Your task to perform on an android device: turn on improve location accuracy Image 0: 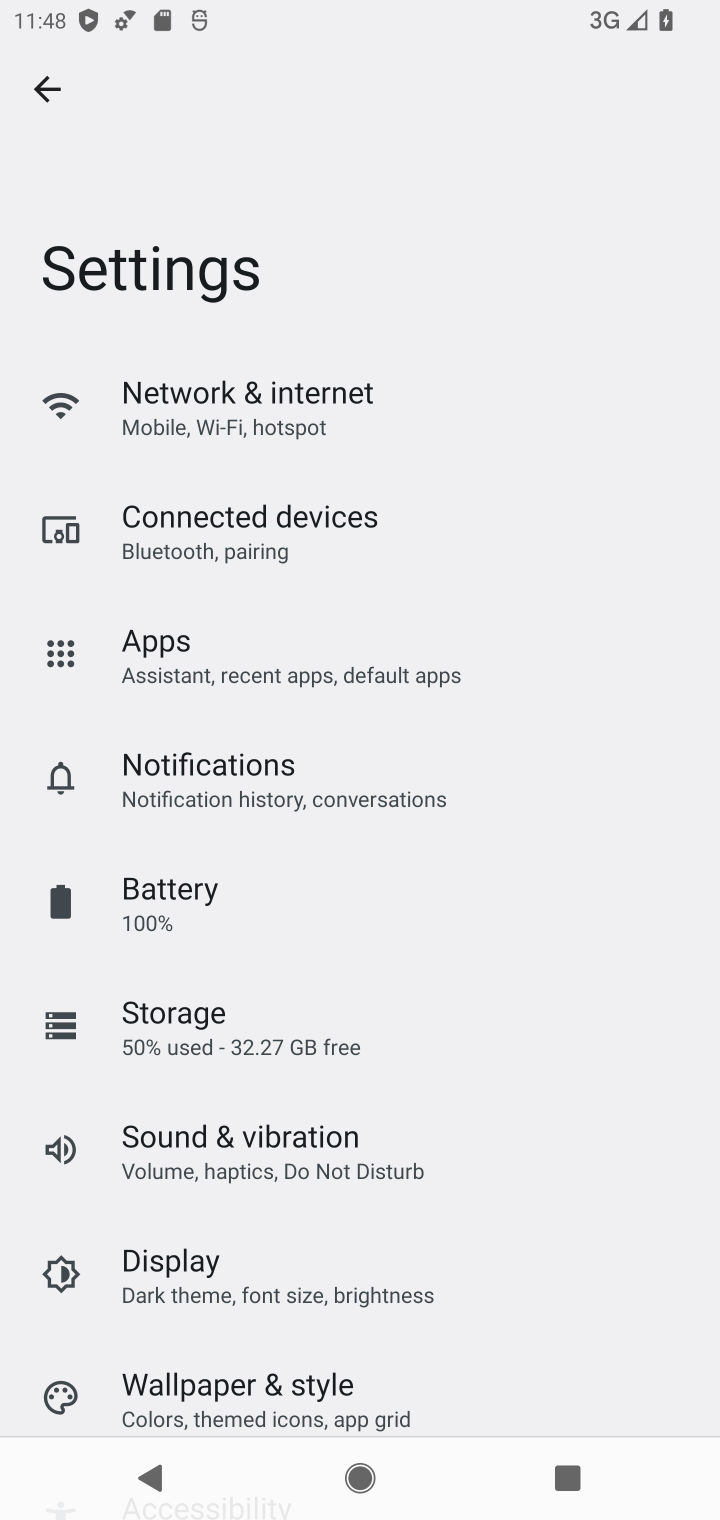
Step 0: press home button
Your task to perform on an android device: turn on improve location accuracy Image 1: 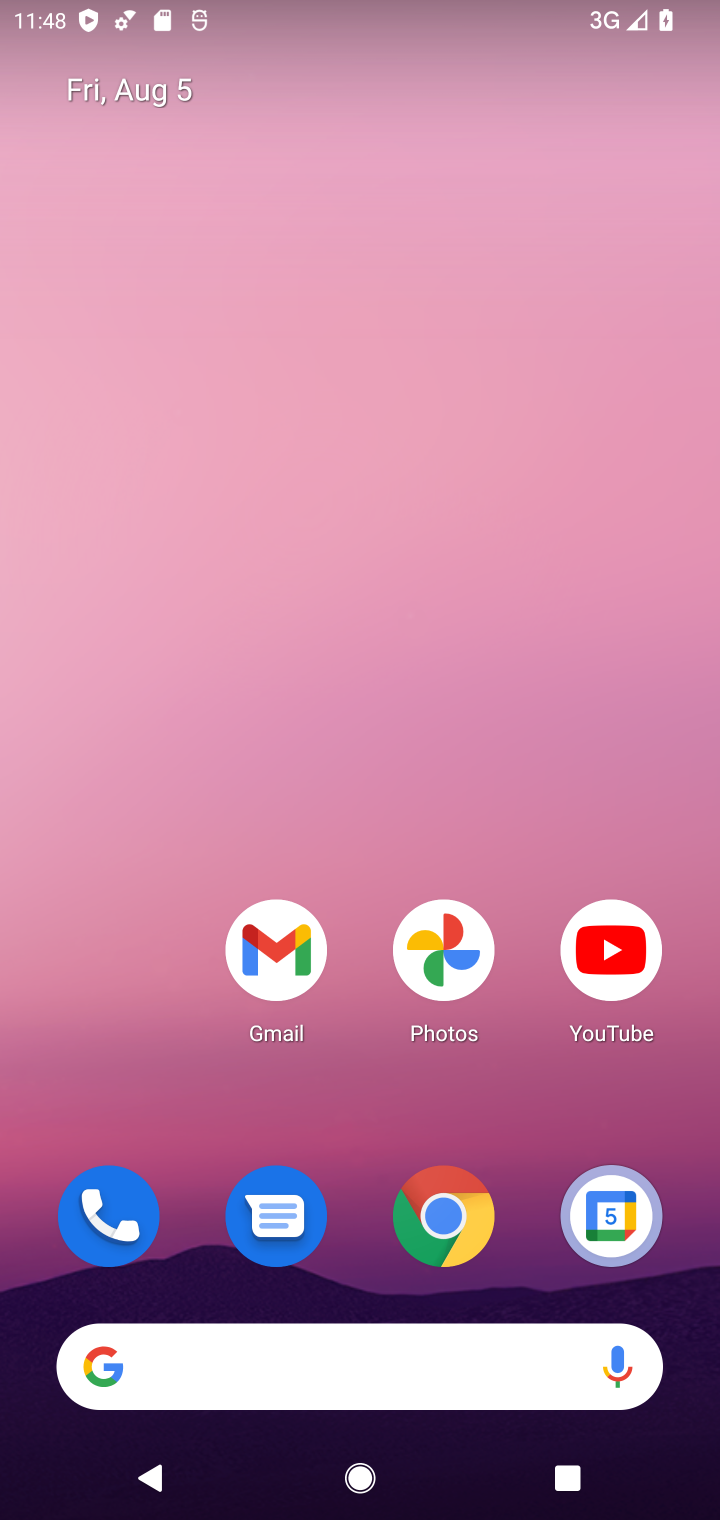
Step 1: drag from (332, 1334) to (388, 141)
Your task to perform on an android device: turn on improve location accuracy Image 2: 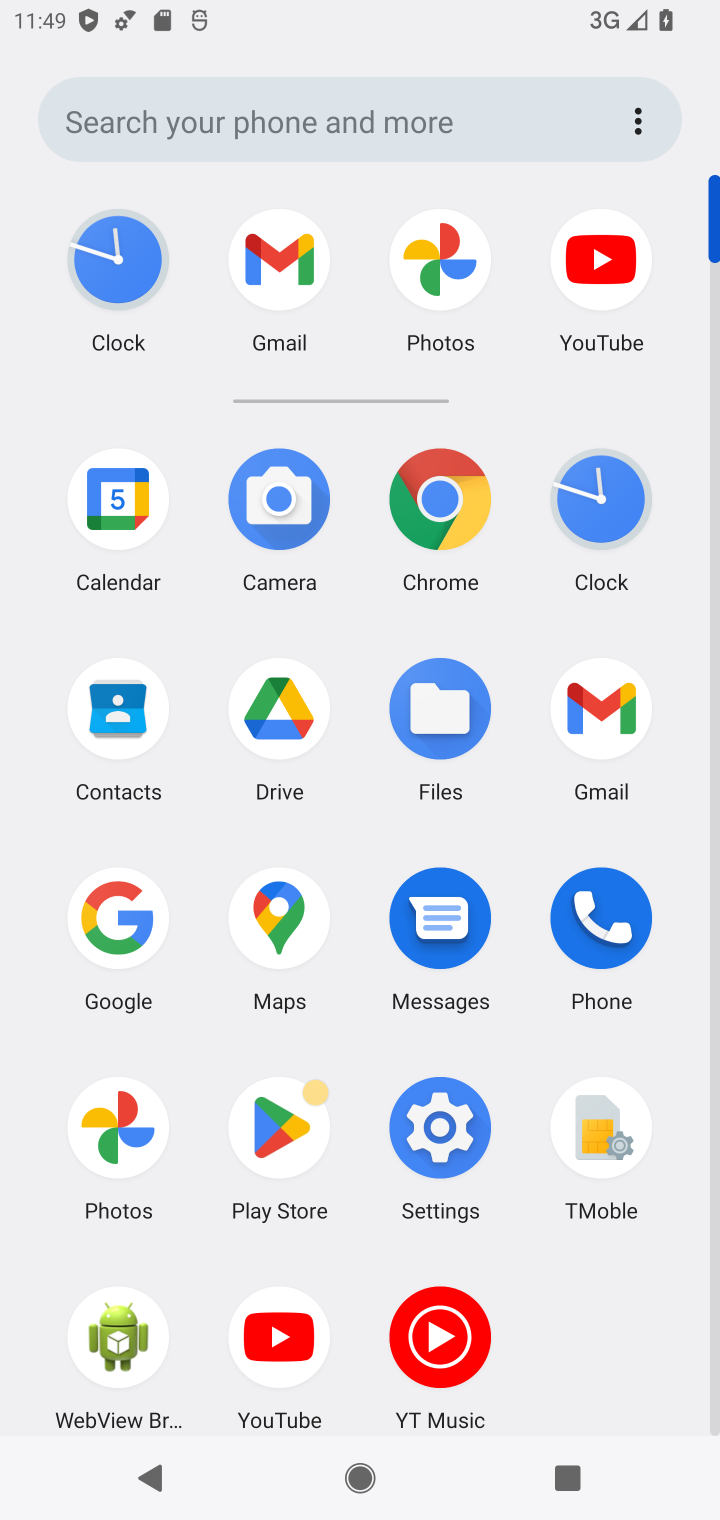
Step 2: click (457, 1136)
Your task to perform on an android device: turn on improve location accuracy Image 3: 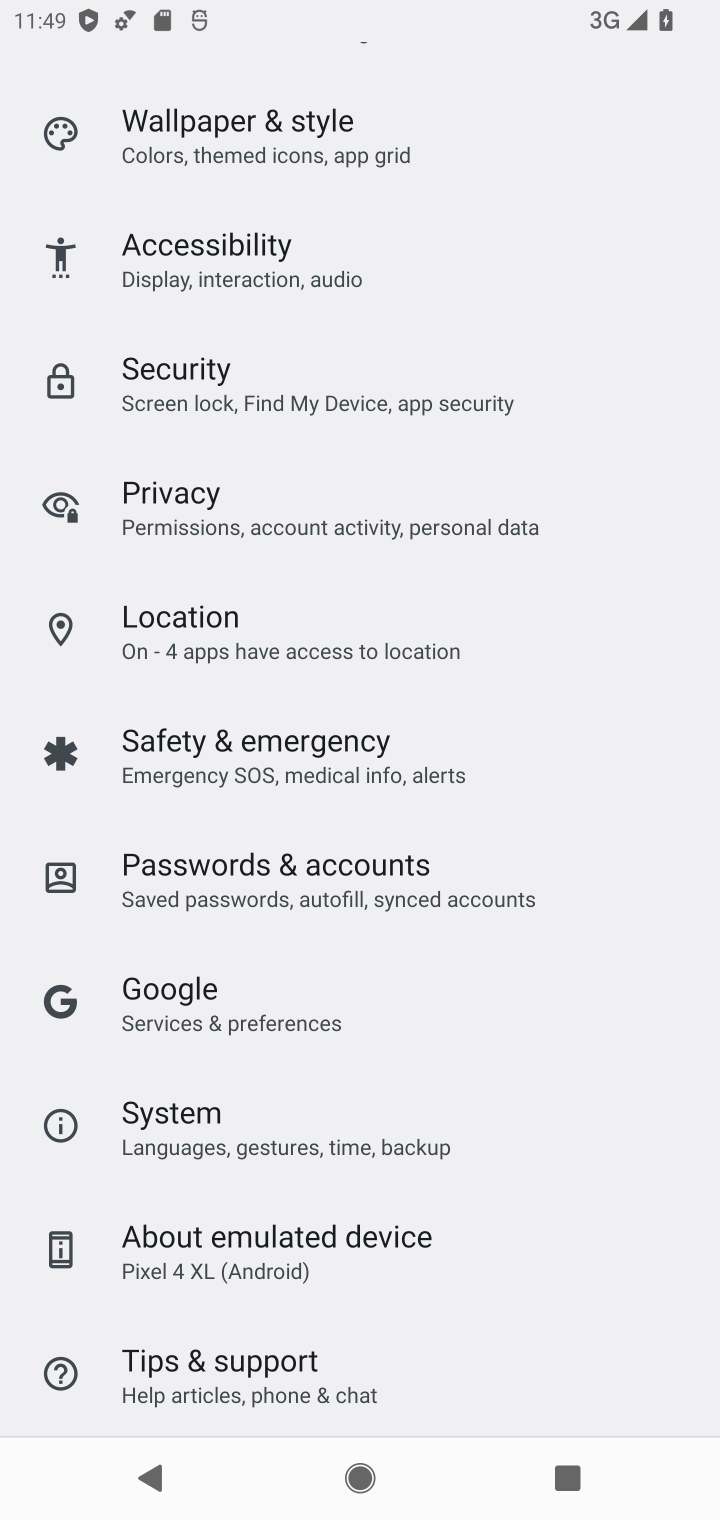
Step 3: click (226, 627)
Your task to perform on an android device: turn on improve location accuracy Image 4: 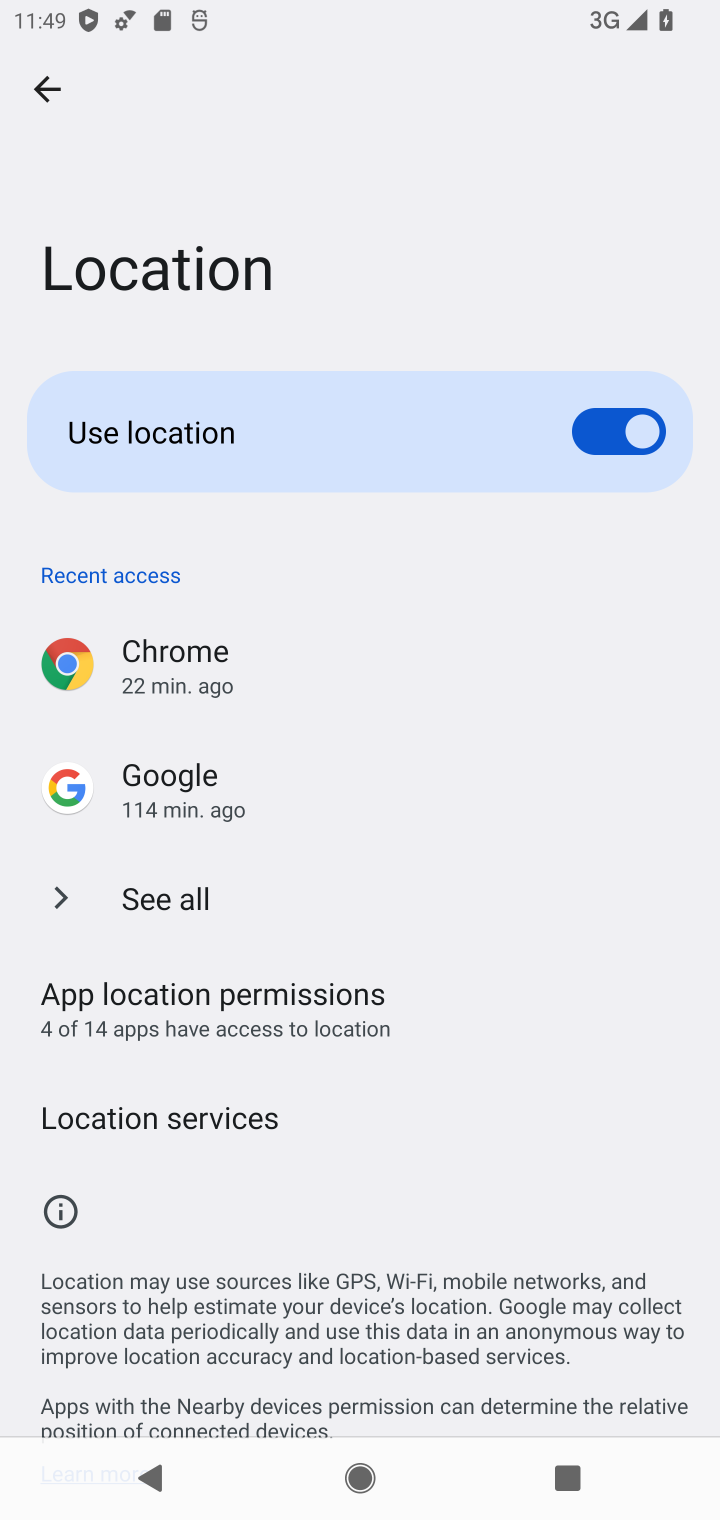
Step 4: click (283, 1102)
Your task to perform on an android device: turn on improve location accuracy Image 5: 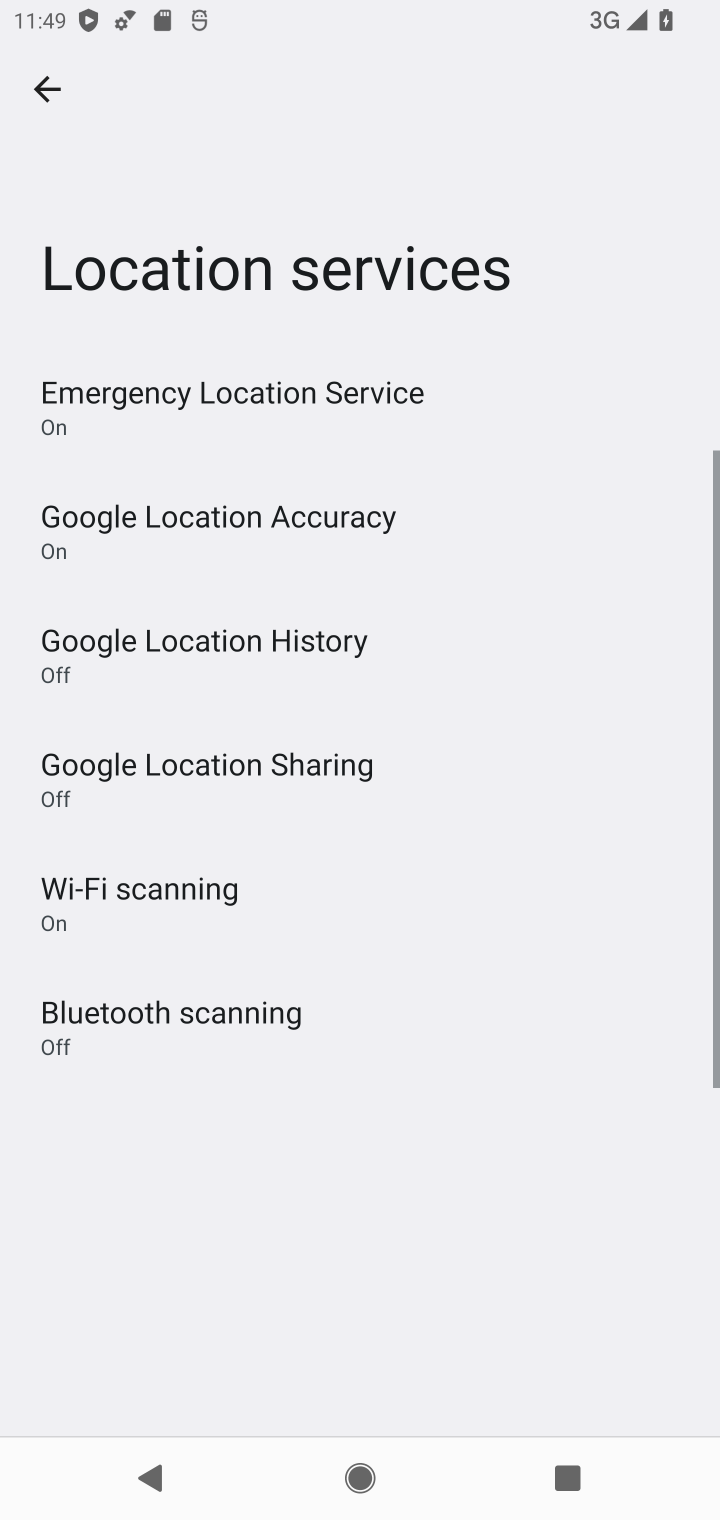
Step 5: click (374, 521)
Your task to perform on an android device: turn on improve location accuracy Image 6: 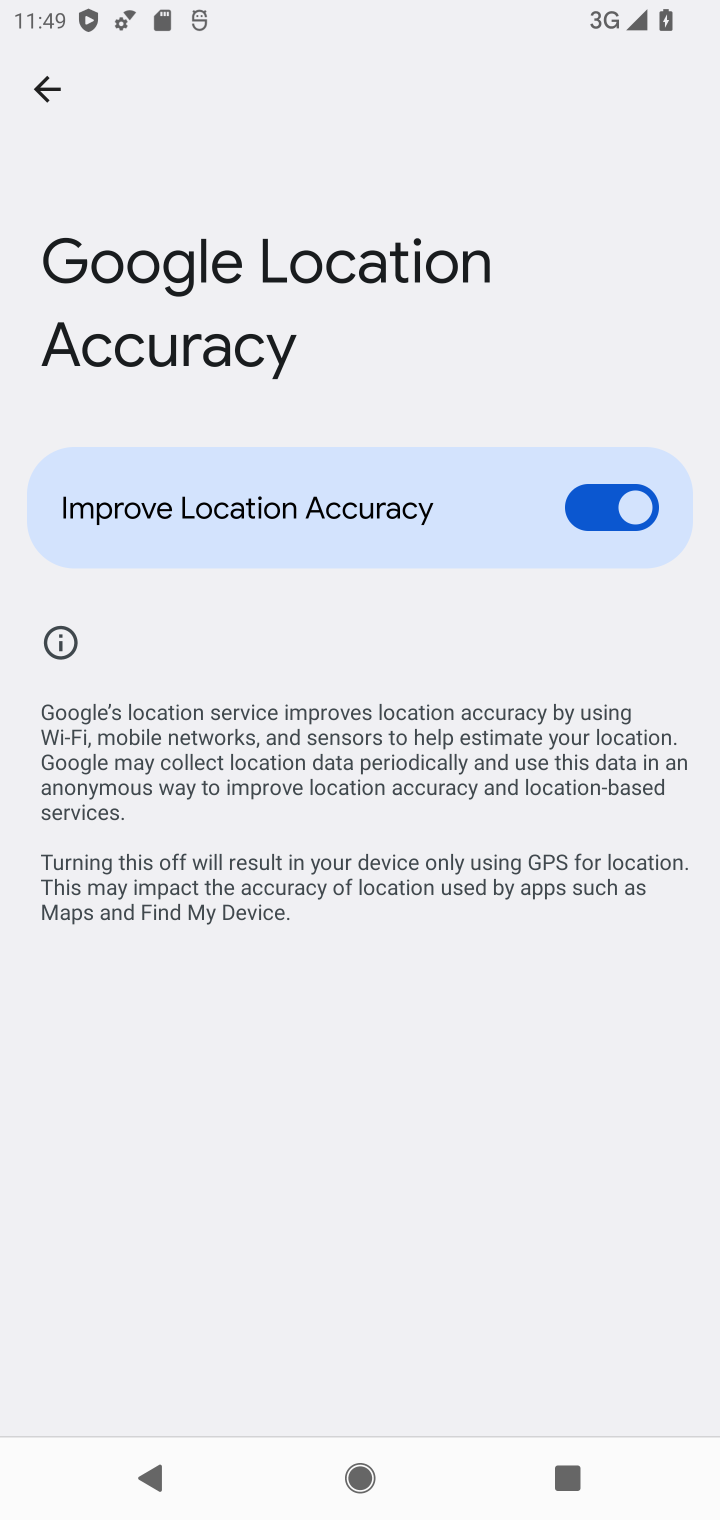
Step 6: task complete